Your task to perform on an android device: Open the stopwatch Image 0: 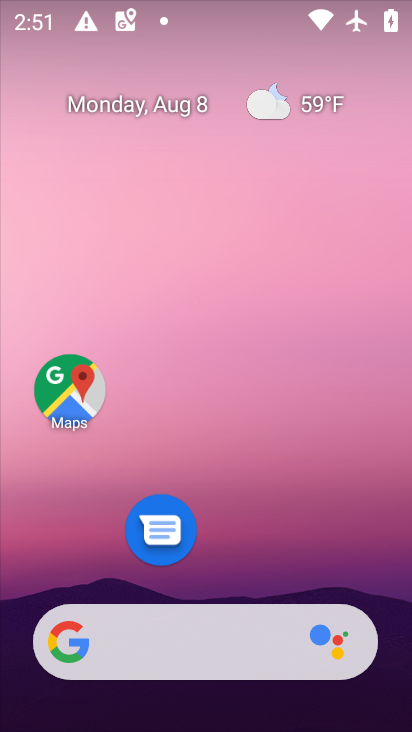
Step 0: drag from (236, 337) to (211, 25)
Your task to perform on an android device: Open the stopwatch Image 1: 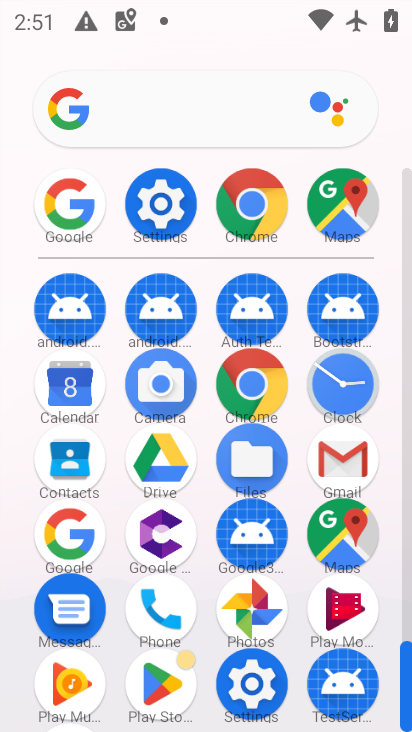
Step 1: click (345, 390)
Your task to perform on an android device: Open the stopwatch Image 2: 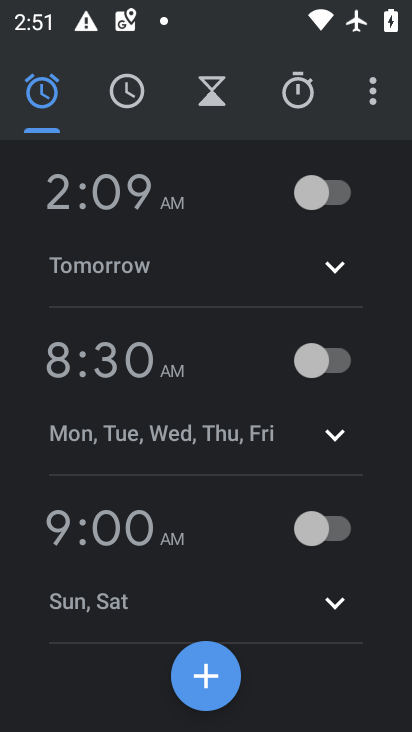
Step 2: click (309, 91)
Your task to perform on an android device: Open the stopwatch Image 3: 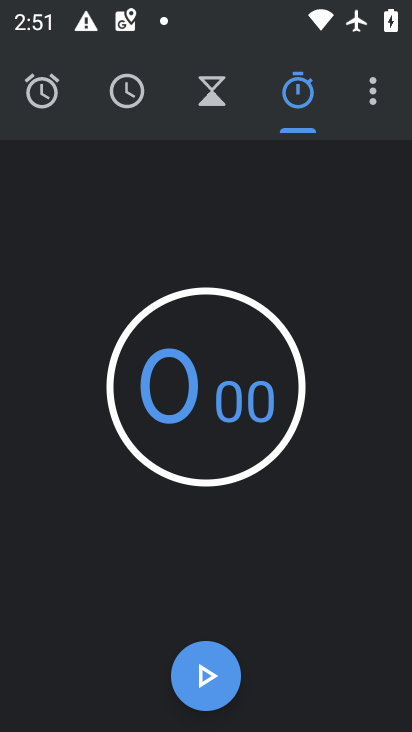
Step 3: task complete